Your task to perform on an android device: turn off smart reply in the gmail app Image 0: 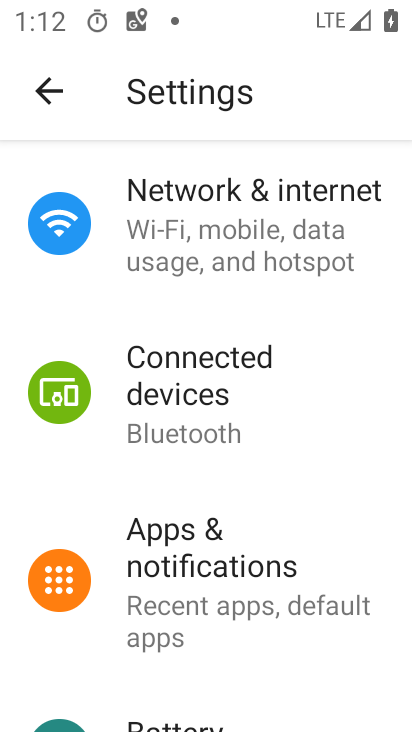
Step 0: press home button
Your task to perform on an android device: turn off smart reply in the gmail app Image 1: 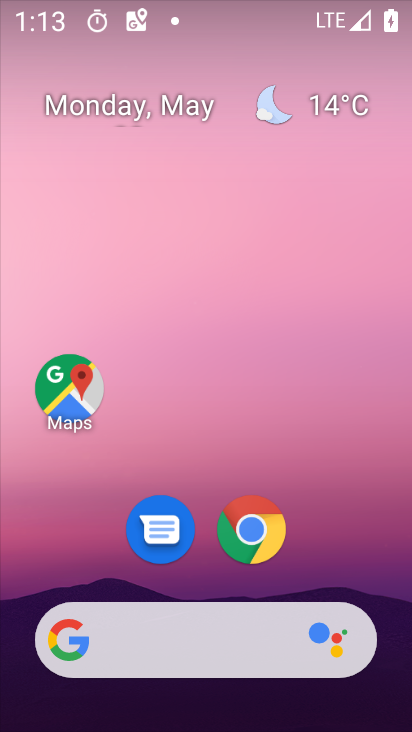
Step 1: drag from (382, 586) to (362, 197)
Your task to perform on an android device: turn off smart reply in the gmail app Image 2: 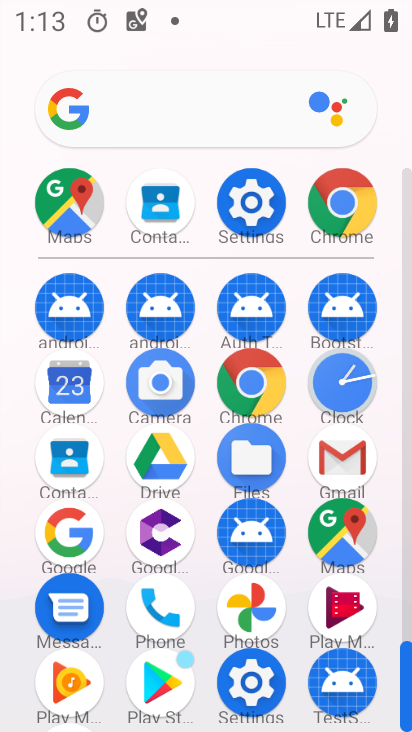
Step 2: click (341, 467)
Your task to perform on an android device: turn off smart reply in the gmail app Image 3: 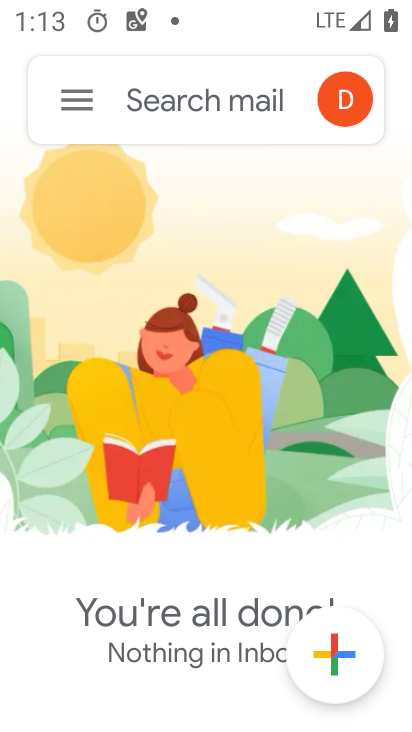
Step 3: click (70, 98)
Your task to perform on an android device: turn off smart reply in the gmail app Image 4: 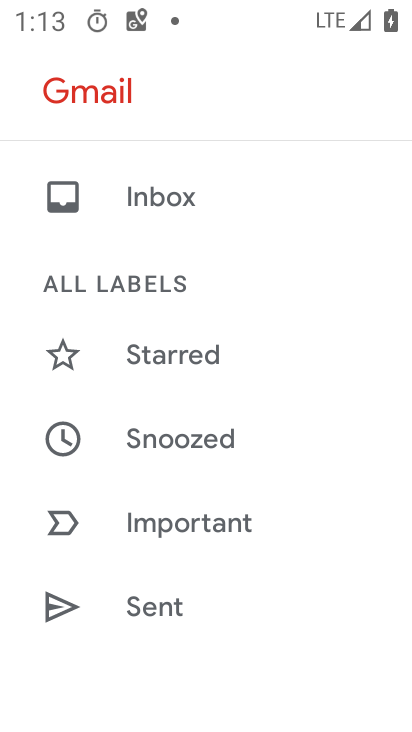
Step 4: drag from (319, 549) to (335, 440)
Your task to perform on an android device: turn off smart reply in the gmail app Image 5: 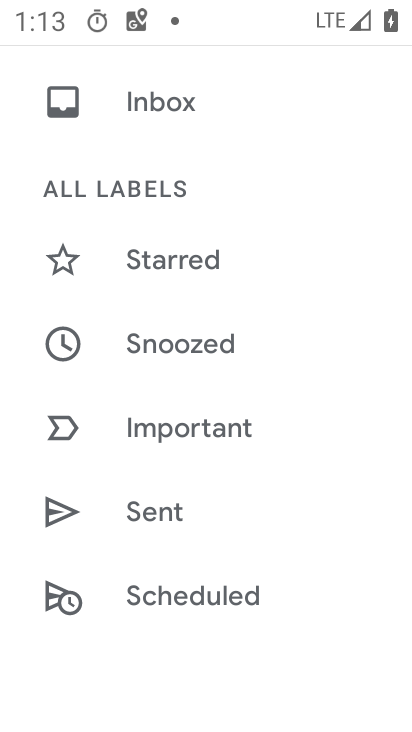
Step 5: drag from (341, 605) to (317, 435)
Your task to perform on an android device: turn off smart reply in the gmail app Image 6: 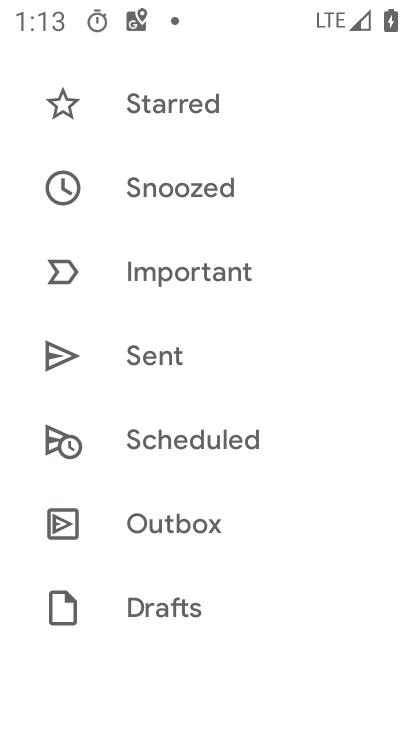
Step 6: drag from (338, 601) to (337, 500)
Your task to perform on an android device: turn off smart reply in the gmail app Image 7: 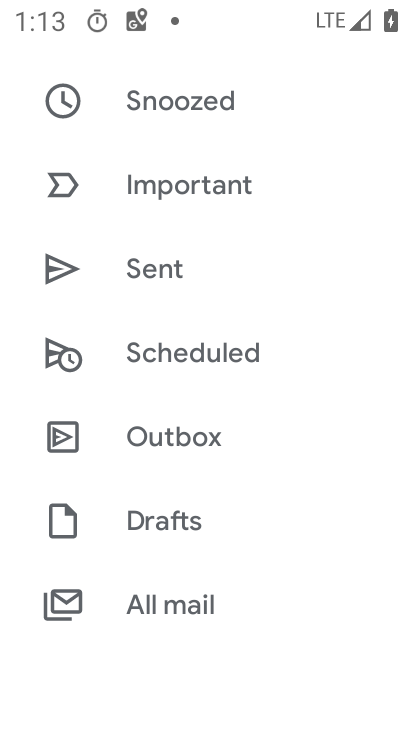
Step 7: drag from (334, 605) to (345, 471)
Your task to perform on an android device: turn off smart reply in the gmail app Image 8: 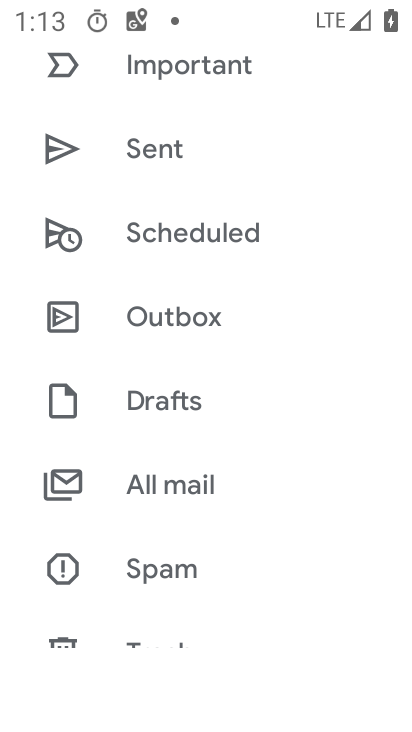
Step 8: drag from (364, 562) to (355, 333)
Your task to perform on an android device: turn off smart reply in the gmail app Image 9: 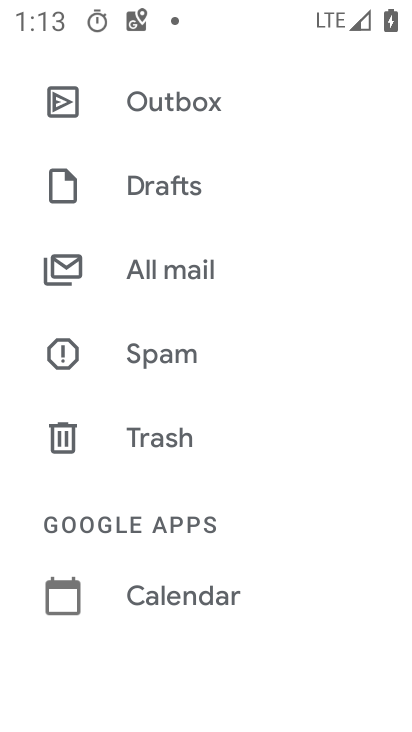
Step 9: drag from (337, 554) to (323, 426)
Your task to perform on an android device: turn off smart reply in the gmail app Image 10: 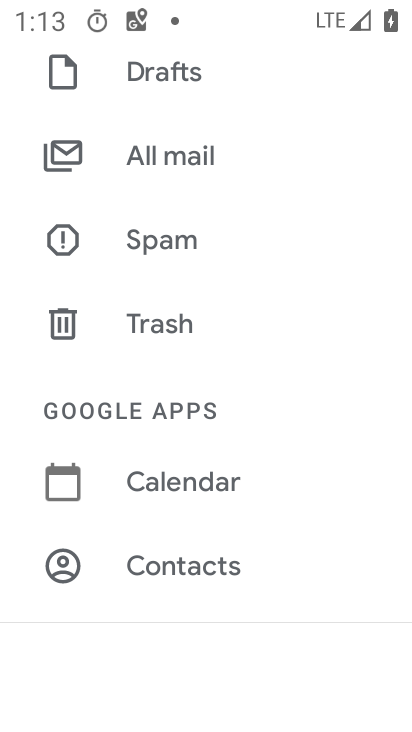
Step 10: drag from (321, 574) to (317, 416)
Your task to perform on an android device: turn off smart reply in the gmail app Image 11: 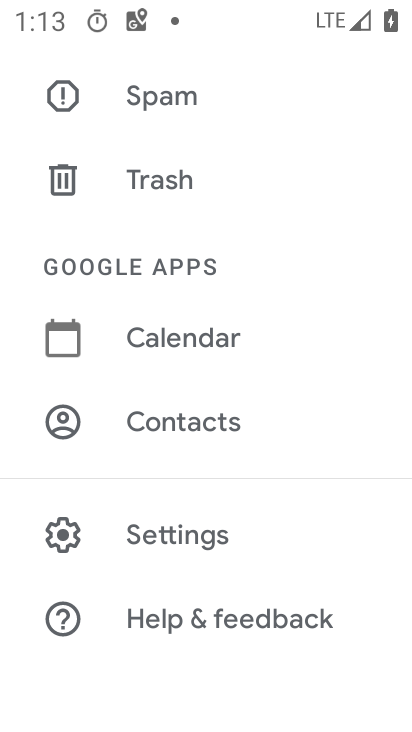
Step 11: drag from (308, 555) to (314, 397)
Your task to perform on an android device: turn off smart reply in the gmail app Image 12: 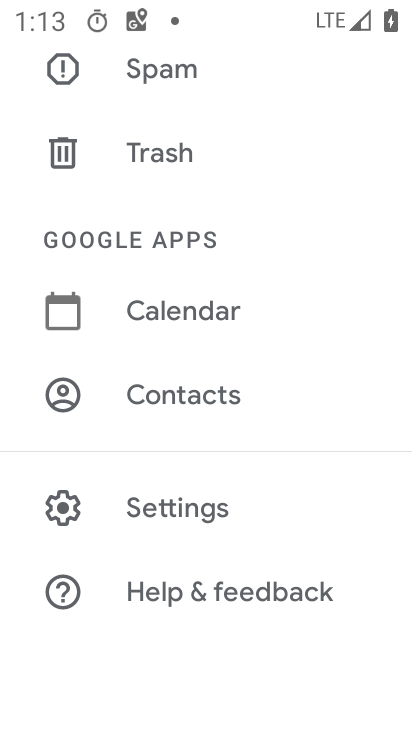
Step 12: click (204, 517)
Your task to perform on an android device: turn off smart reply in the gmail app Image 13: 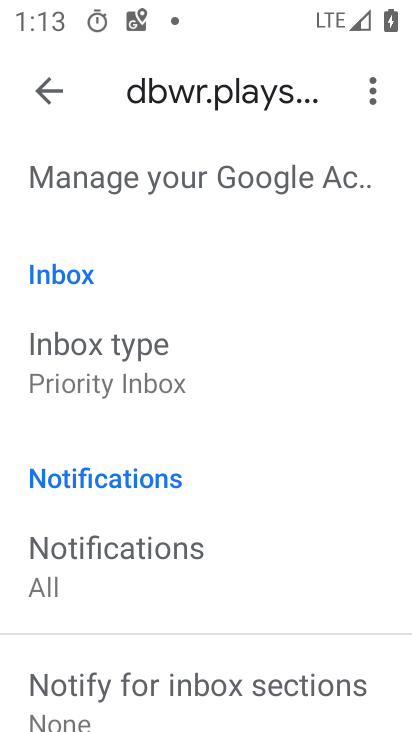
Step 13: drag from (315, 582) to (317, 470)
Your task to perform on an android device: turn off smart reply in the gmail app Image 14: 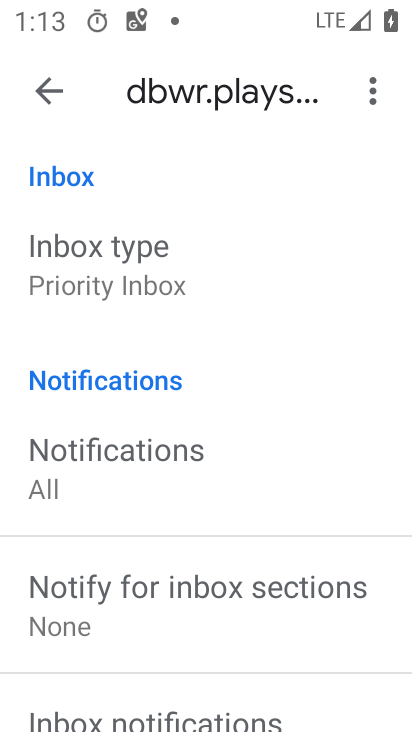
Step 14: drag from (305, 651) to (303, 518)
Your task to perform on an android device: turn off smart reply in the gmail app Image 15: 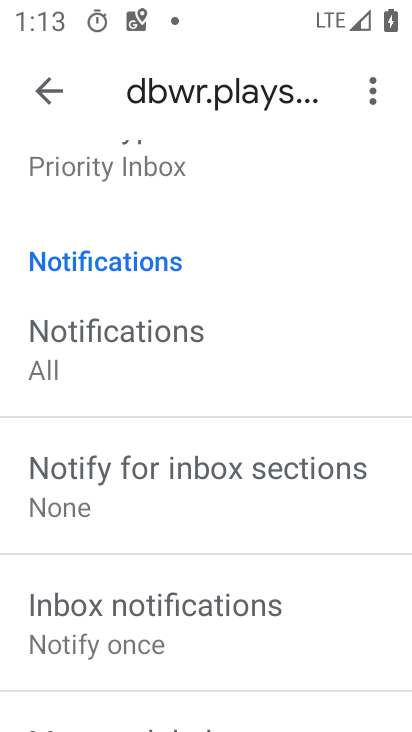
Step 15: drag from (316, 664) to (314, 525)
Your task to perform on an android device: turn off smart reply in the gmail app Image 16: 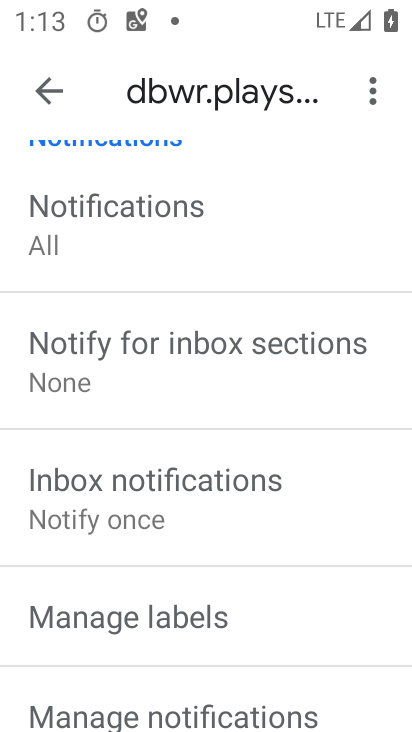
Step 16: drag from (325, 610) to (328, 487)
Your task to perform on an android device: turn off smart reply in the gmail app Image 17: 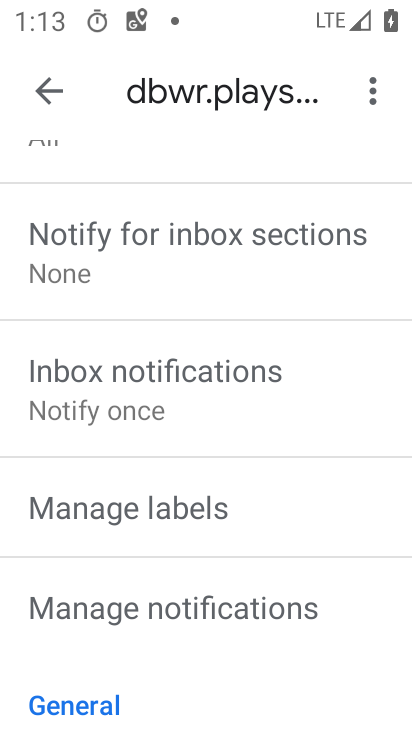
Step 17: drag from (325, 600) to (315, 484)
Your task to perform on an android device: turn off smart reply in the gmail app Image 18: 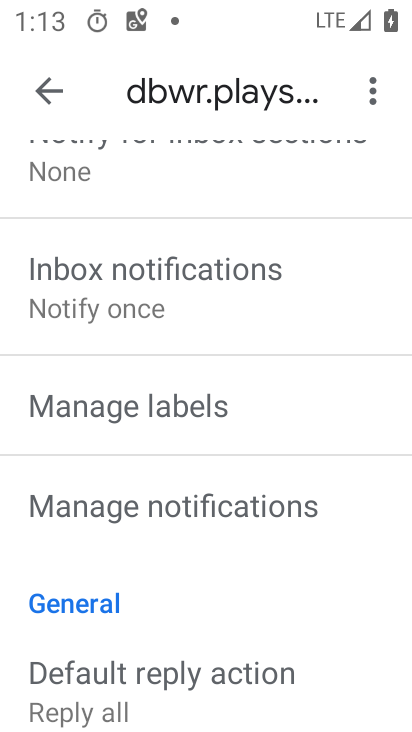
Step 18: drag from (342, 655) to (339, 505)
Your task to perform on an android device: turn off smart reply in the gmail app Image 19: 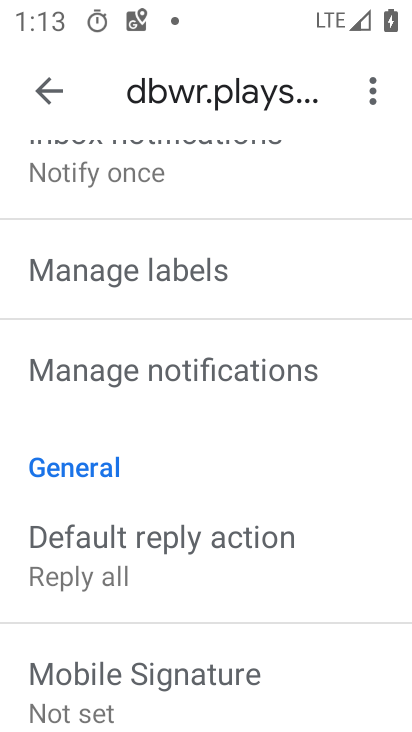
Step 19: drag from (346, 677) to (345, 525)
Your task to perform on an android device: turn off smart reply in the gmail app Image 20: 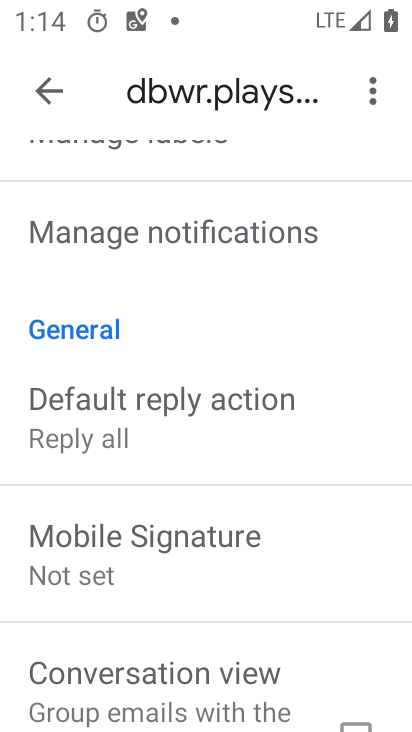
Step 20: drag from (334, 670) to (330, 524)
Your task to perform on an android device: turn off smart reply in the gmail app Image 21: 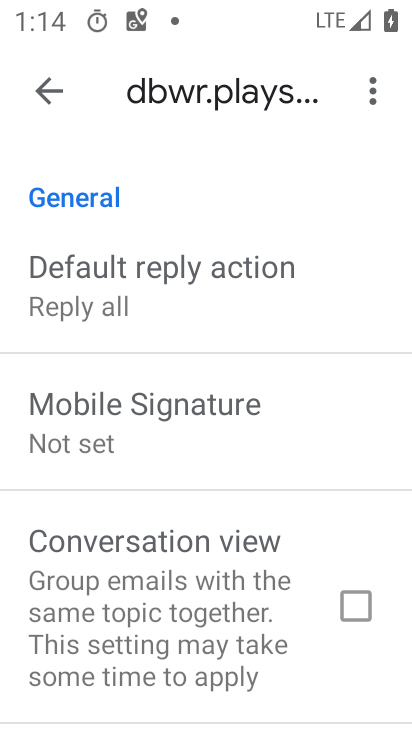
Step 21: drag from (324, 679) to (315, 531)
Your task to perform on an android device: turn off smart reply in the gmail app Image 22: 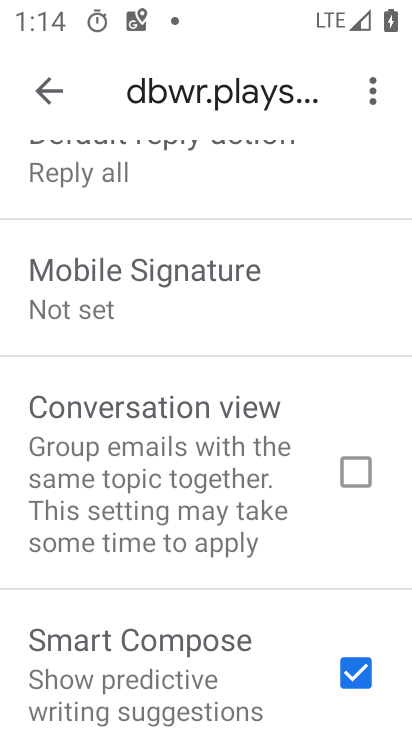
Step 22: drag from (291, 685) to (302, 456)
Your task to perform on an android device: turn off smart reply in the gmail app Image 23: 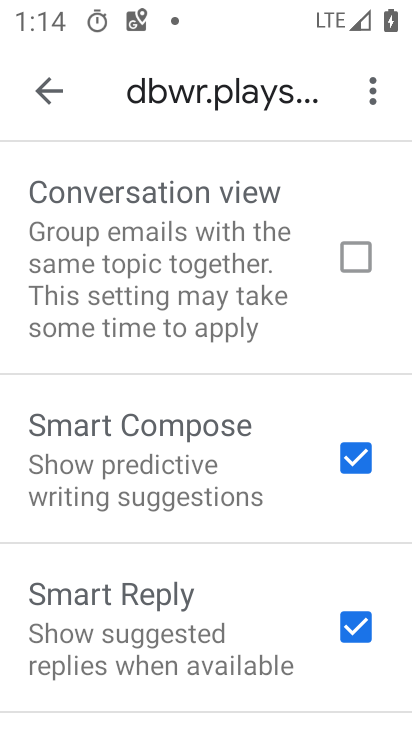
Step 23: drag from (273, 647) to (272, 539)
Your task to perform on an android device: turn off smart reply in the gmail app Image 24: 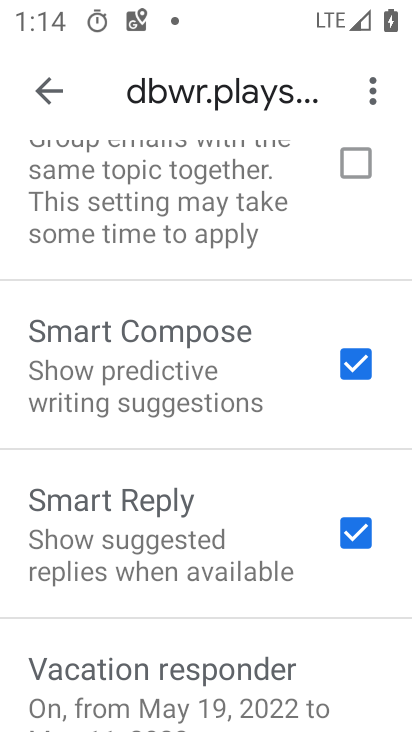
Step 24: click (350, 514)
Your task to perform on an android device: turn off smart reply in the gmail app Image 25: 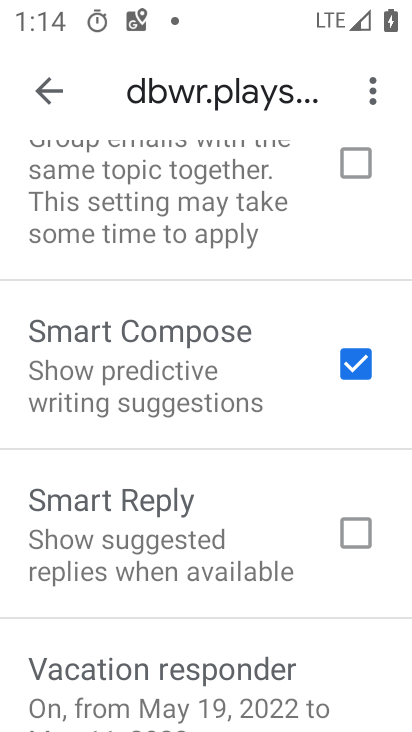
Step 25: task complete